Your task to perform on an android device: turn off location history Image 0: 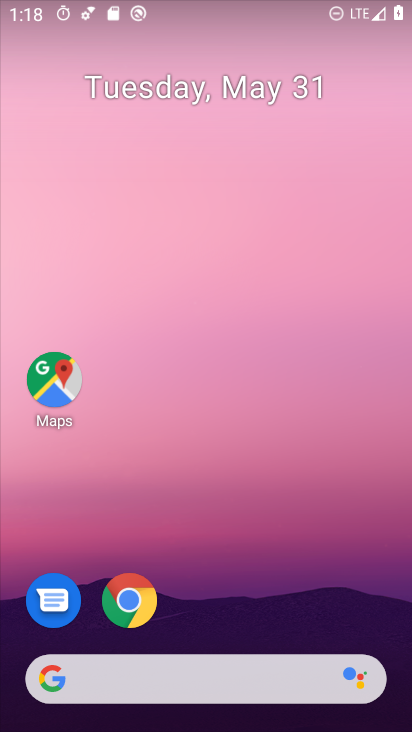
Step 0: drag from (213, 717) to (206, 93)
Your task to perform on an android device: turn off location history Image 1: 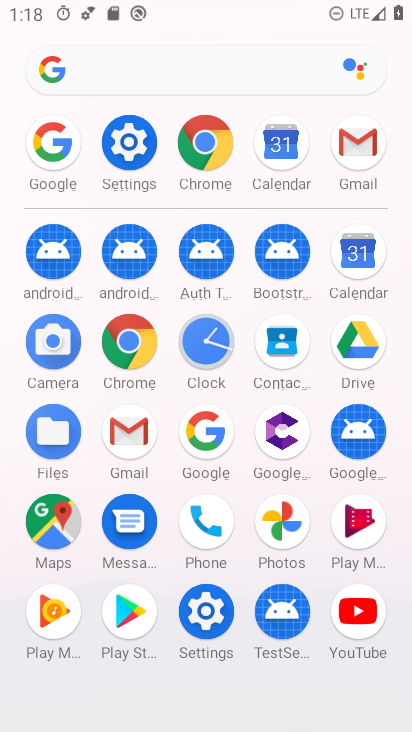
Step 1: click (207, 617)
Your task to perform on an android device: turn off location history Image 2: 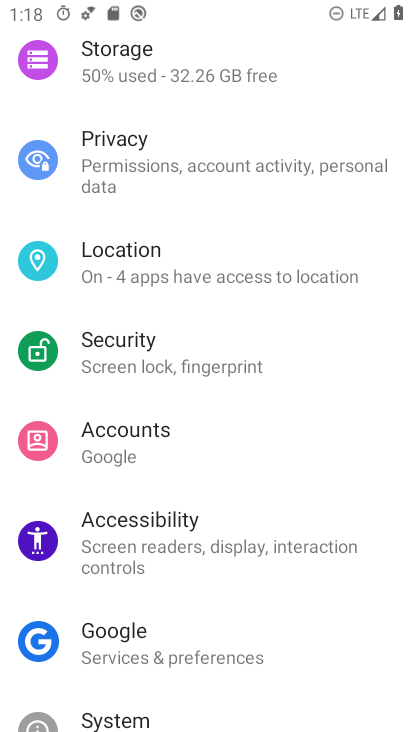
Step 2: click (108, 260)
Your task to perform on an android device: turn off location history Image 3: 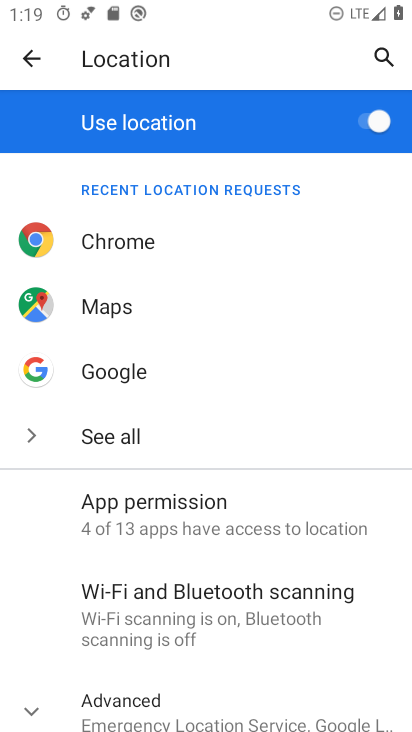
Step 3: click (146, 706)
Your task to perform on an android device: turn off location history Image 4: 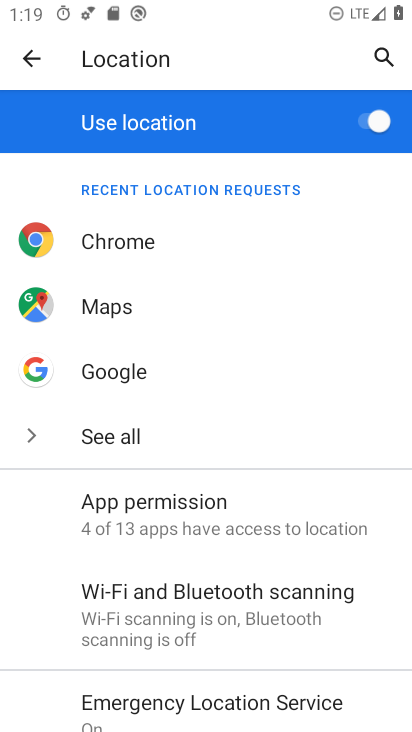
Step 4: drag from (153, 680) to (170, 236)
Your task to perform on an android device: turn off location history Image 5: 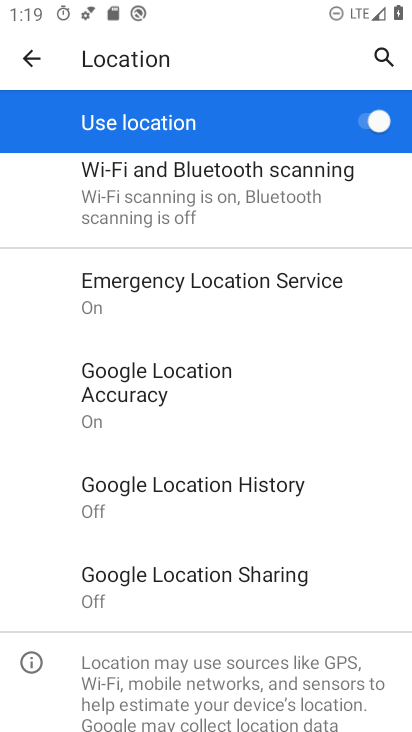
Step 5: click (192, 482)
Your task to perform on an android device: turn off location history Image 6: 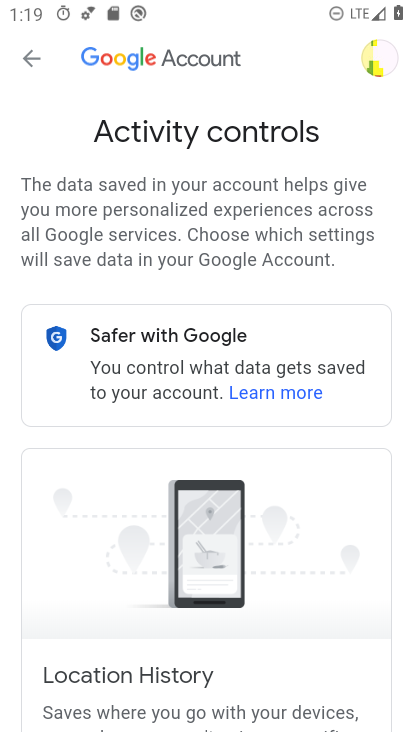
Step 6: task complete